Your task to perform on an android device: allow notifications from all sites in the chrome app Image 0: 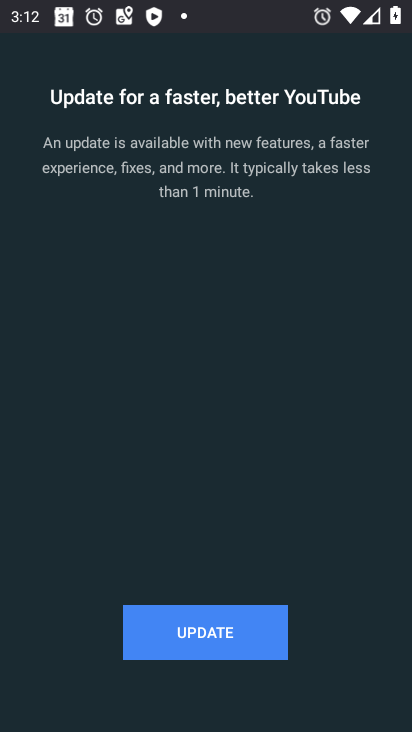
Step 0: task impossible